Your task to perform on an android device: Go to eBay Image 0: 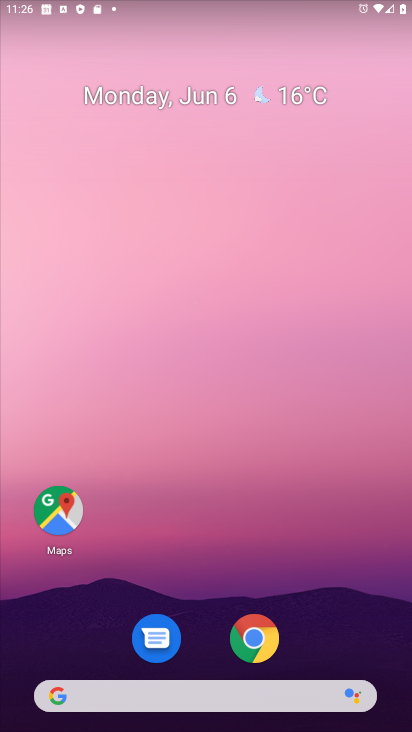
Step 0: click (304, 271)
Your task to perform on an android device: Go to eBay Image 1: 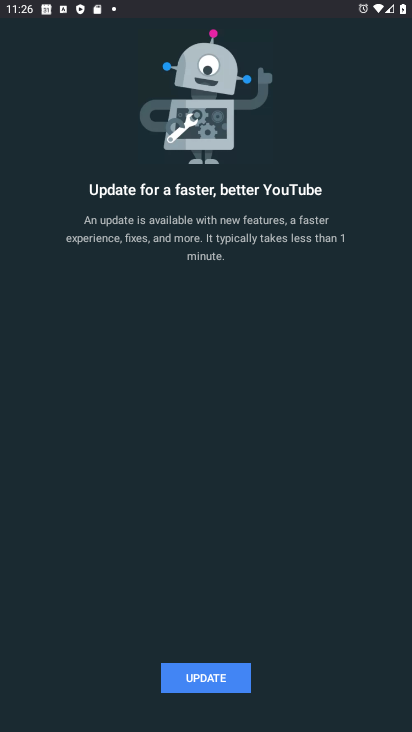
Step 1: press back button
Your task to perform on an android device: Go to eBay Image 2: 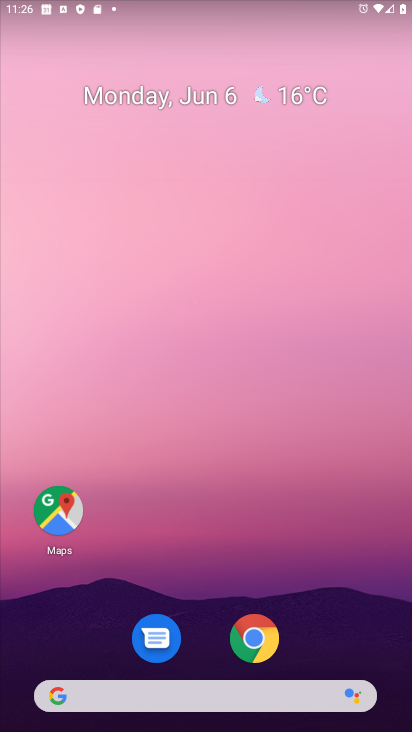
Step 2: drag from (275, 693) to (262, 170)
Your task to perform on an android device: Go to eBay Image 3: 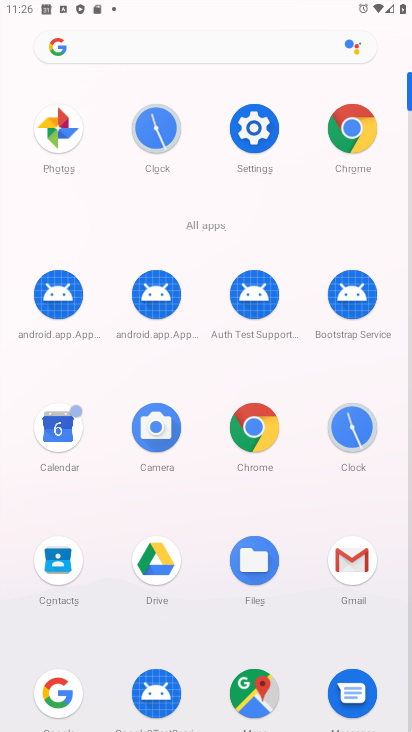
Step 3: click (362, 136)
Your task to perform on an android device: Go to eBay Image 4: 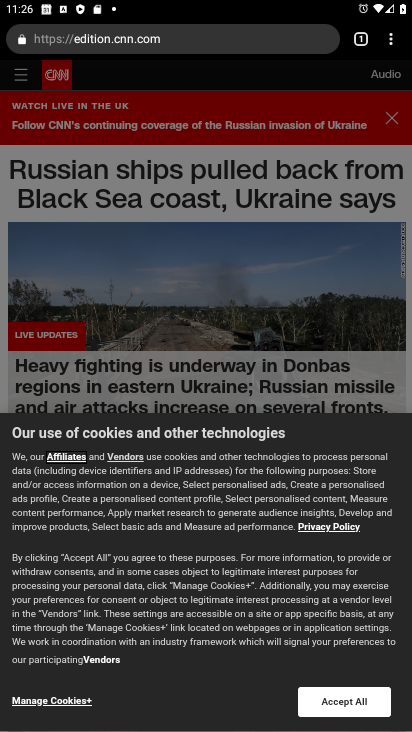
Step 4: click (171, 35)
Your task to perform on an android device: Go to eBay Image 5: 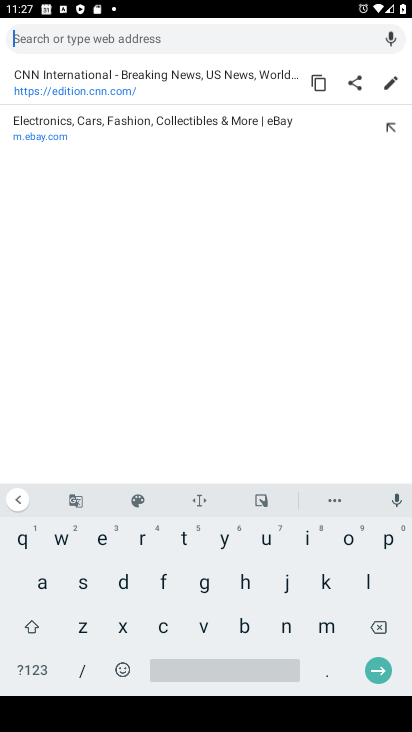
Step 5: click (92, 538)
Your task to perform on an android device: Go to eBay Image 6: 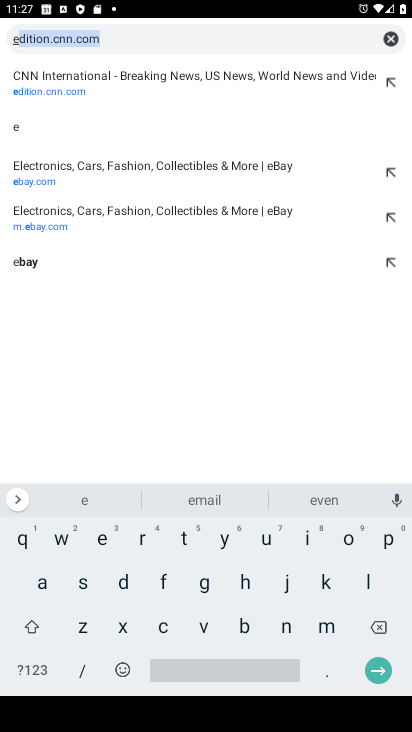
Step 6: click (242, 631)
Your task to perform on an android device: Go to eBay Image 7: 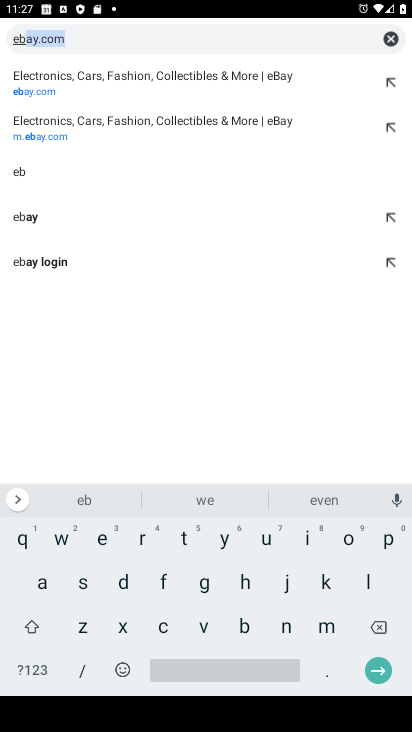
Step 7: click (153, 35)
Your task to perform on an android device: Go to eBay Image 8: 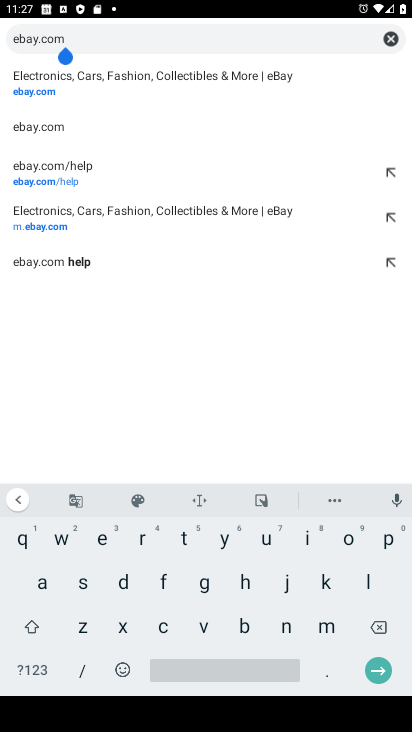
Step 8: click (378, 671)
Your task to perform on an android device: Go to eBay Image 9: 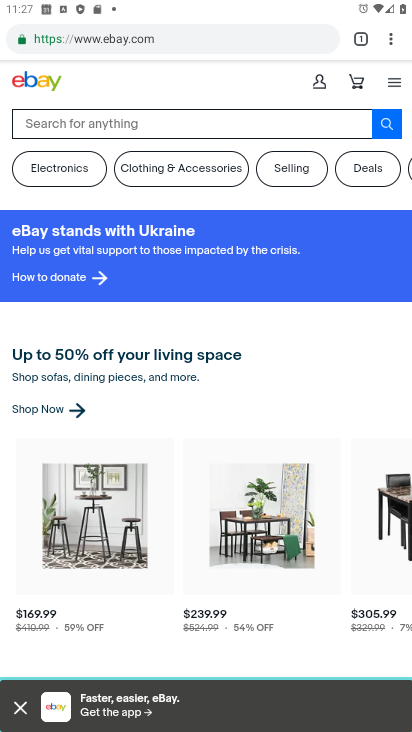
Step 9: task complete